Your task to perform on an android device: Search for Mexican restaurants on Maps Image 0: 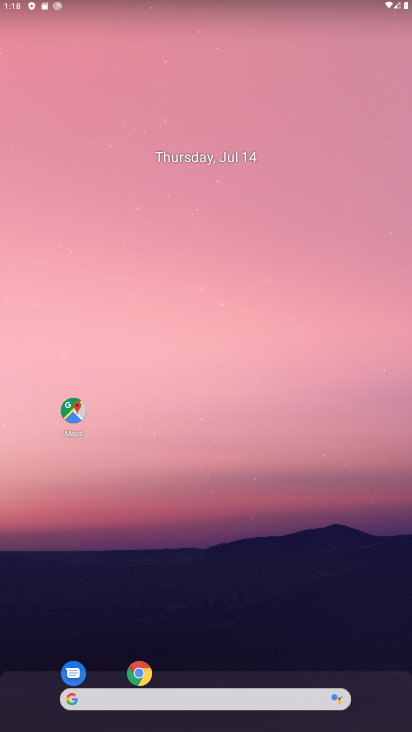
Step 0: click (78, 415)
Your task to perform on an android device: Search for Mexican restaurants on Maps Image 1: 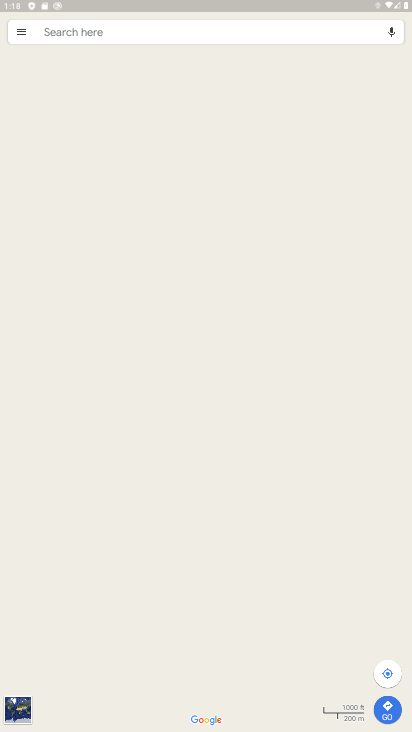
Step 1: click (172, 31)
Your task to perform on an android device: Search for Mexican restaurants on Maps Image 2: 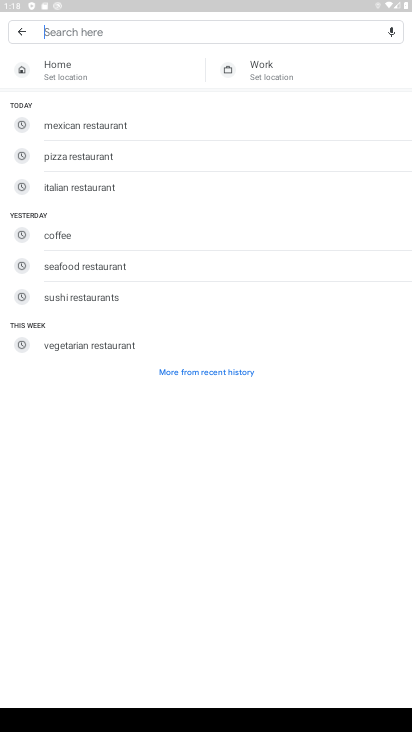
Step 2: type "mexican restaurants"
Your task to perform on an android device: Search for Mexican restaurants on Maps Image 3: 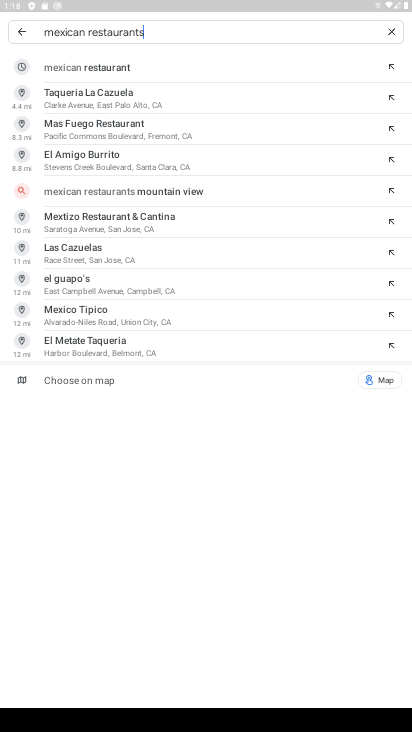
Step 3: click (61, 66)
Your task to perform on an android device: Search for Mexican restaurants on Maps Image 4: 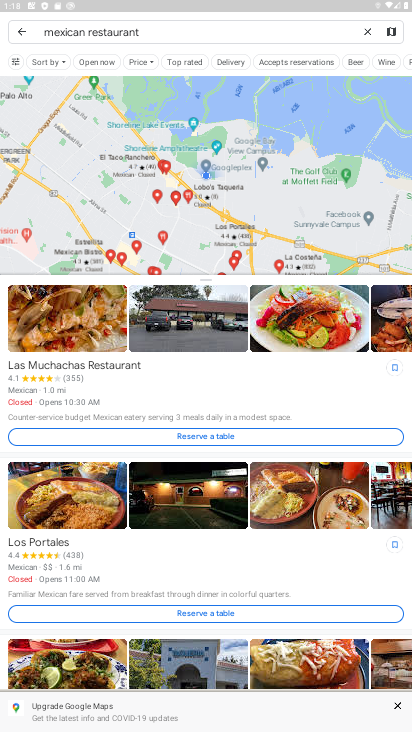
Step 4: task complete